Your task to perform on an android device: Check the weather Image 0: 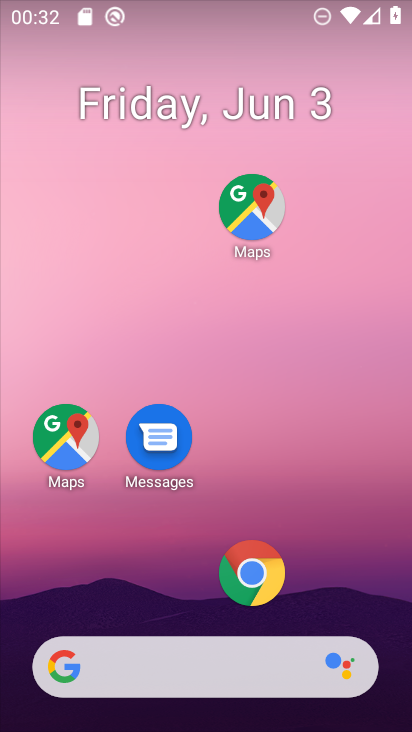
Step 0: click (196, 679)
Your task to perform on an android device: Check the weather Image 1: 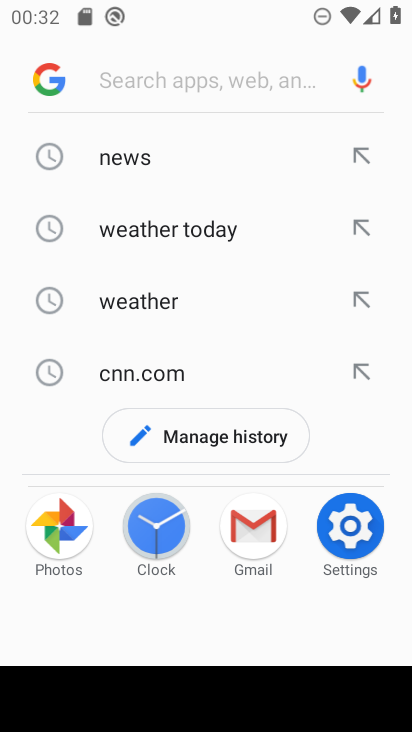
Step 1: click (141, 293)
Your task to perform on an android device: Check the weather Image 2: 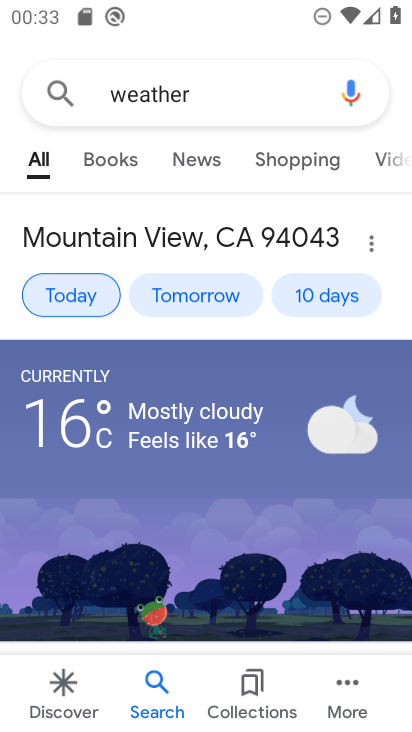
Step 2: task complete